Your task to perform on an android device: Go to CNN.com Image 0: 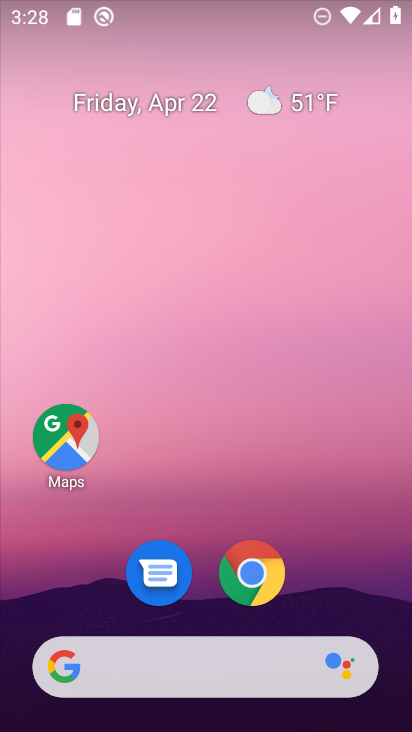
Step 0: click (258, 575)
Your task to perform on an android device: Go to CNN.com Image 1: 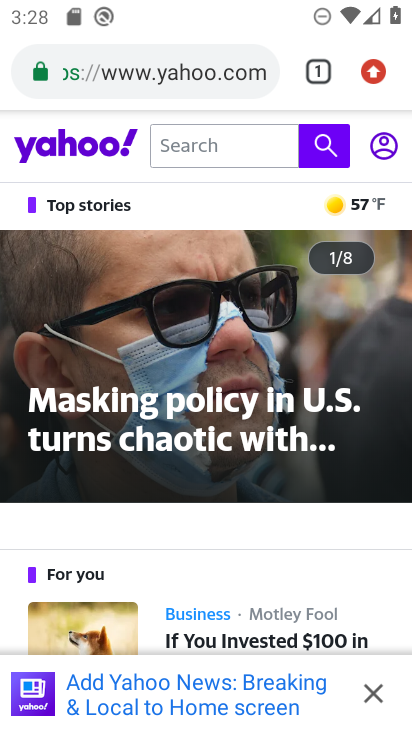
Step 1: click (325, 67)
Your task to perform on an android device: Go to CNN.com Image 2: 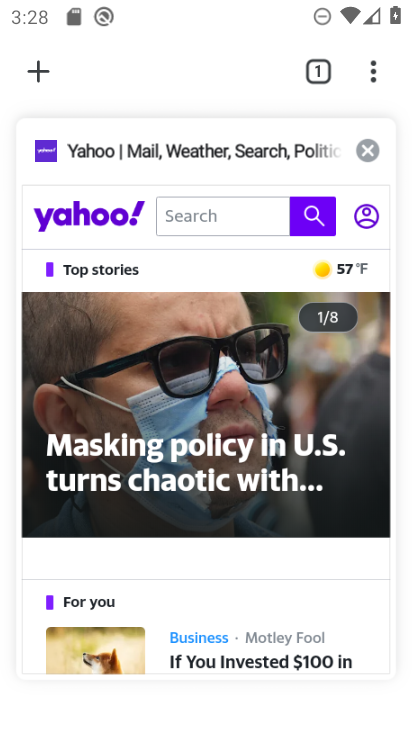
Step 2: click (32, 60)
Your task to perform on an android device: Go to CNN.com Image 3: 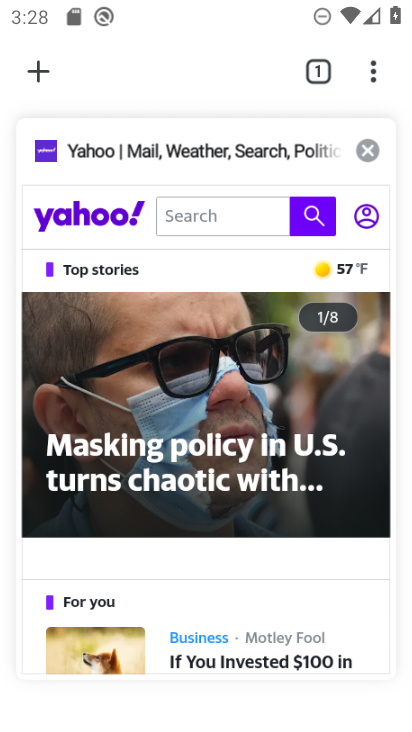
Step 3: click (46, 62)
Your task to perform on an android device: Go to CNN.com Image 4: 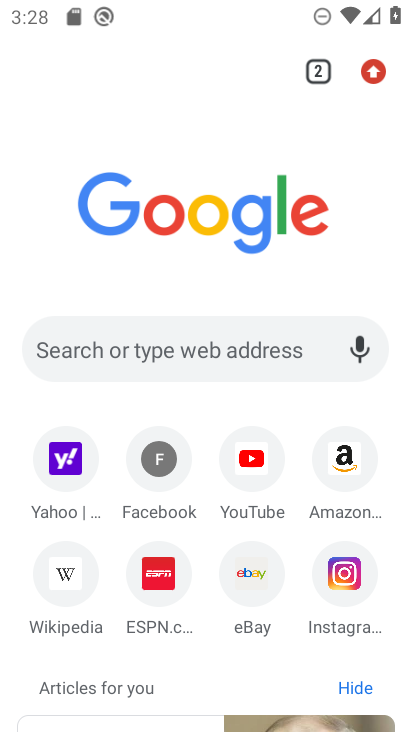
Step 4: click (200, 344)
Your task to perform on an android device: Go to CNN.com Image 5: 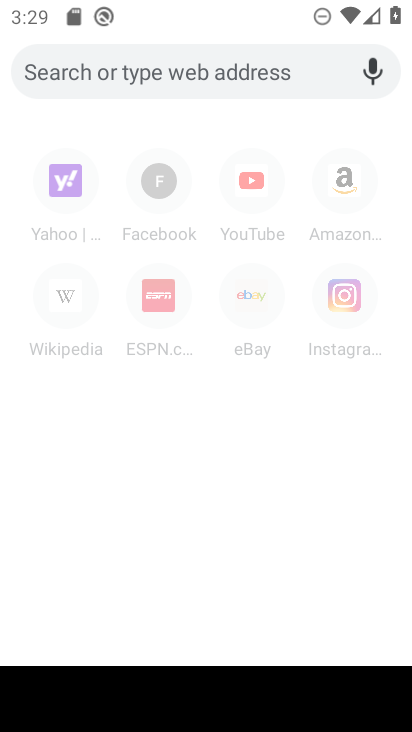
Step 5: type "cnn"
Your task to perform on an android device: Go to CNN.com Image 6: 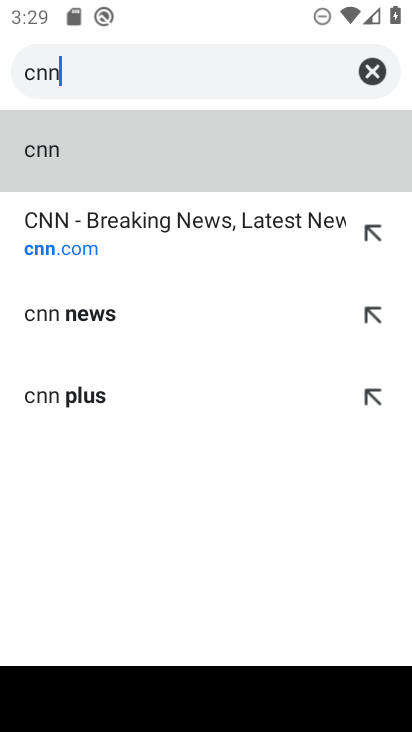
Step 6: click (156, 224)
Your task to perform on an android device: Go to CNN.com Image 7: 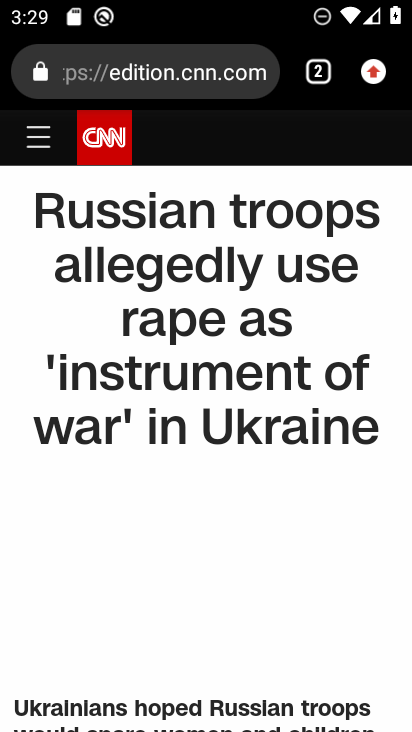
Step 7: task complete